Your task to perform on an android device: open chrome and create a bookmark for the current page Image 0: 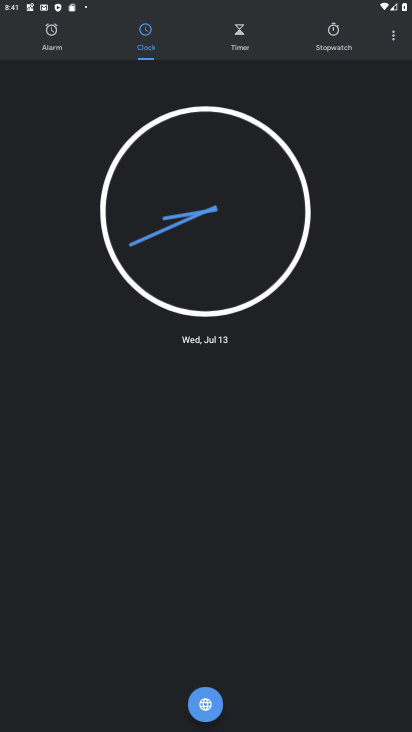
Step 0: press home button
Your task to perform on an android device: open chrome and create a bookmark for the current page Image 1: 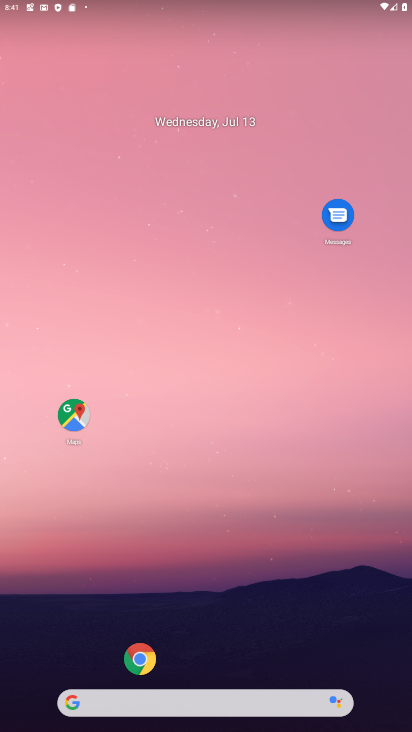
Step 1: click (139, 664)
Your task to perform on an android device: open chrome and create a bookmark for the current page Image 2: 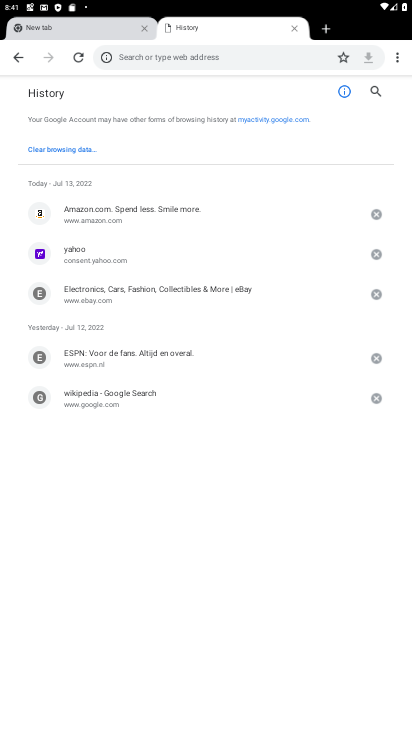
Step 2: click (18, 56)
Your task to perform on an android device: open chrome and create a bookmark for the current page Image 3: 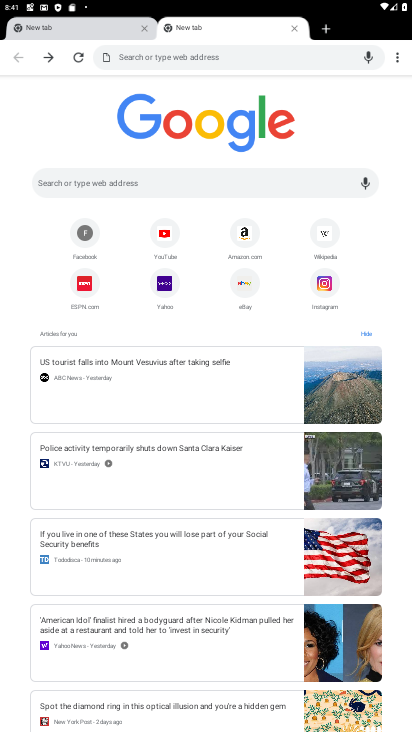
Step 3: click (396, 60)
Your task to perform on an android device: open chrome and create a bookmark for the current page Image 4: 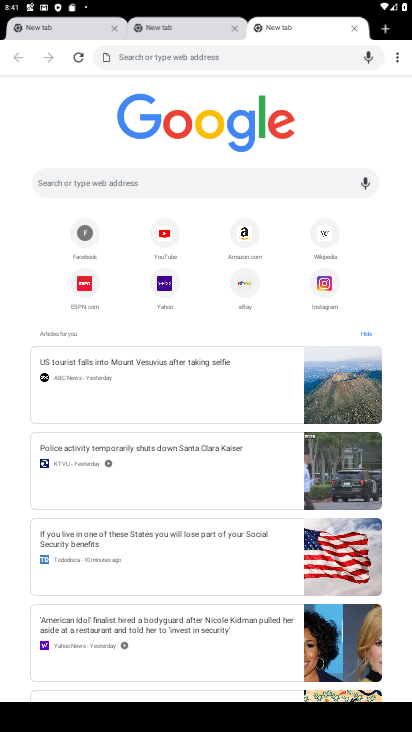
Step 4: click (396, 57)
Your task to perform on an android device: open chrome and create a bookmark for the current page Image 5: 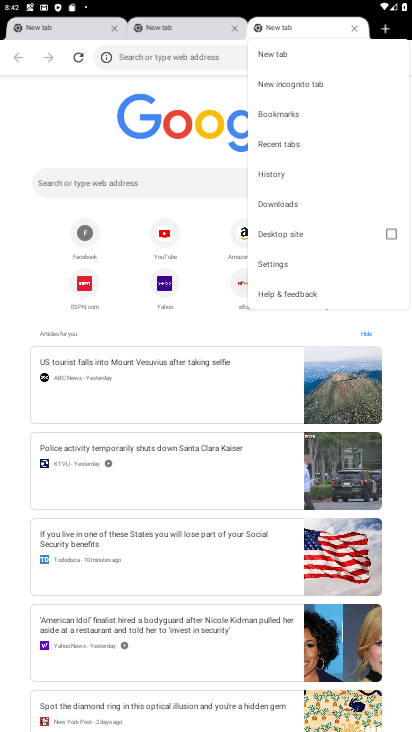
Step 5: click (288, 111)
Your task to perform on an android device: open chrome and create a bookmark for the current page Image 6: 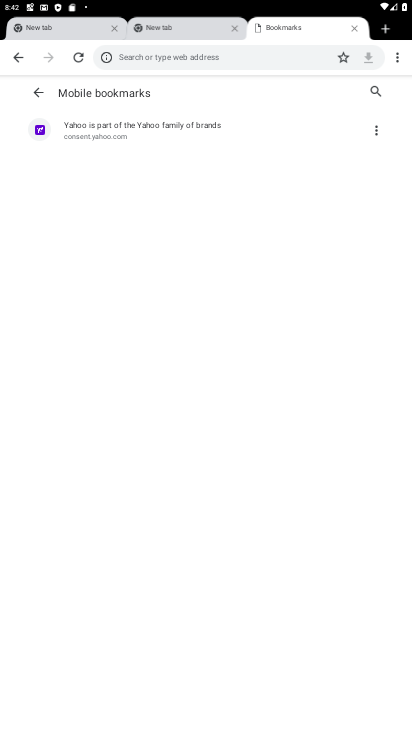
Step 6: task complete